Your task to perform on an android device: Go to sound settings Image 0: 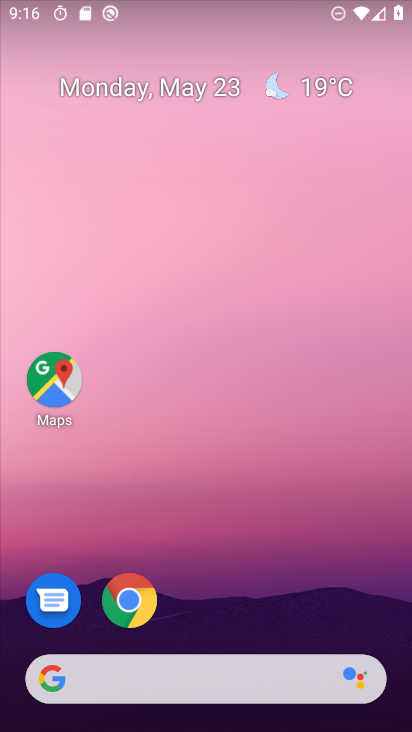
Step 0: press home button
Your task to perform on an android device: Go to sound settings Image 1: 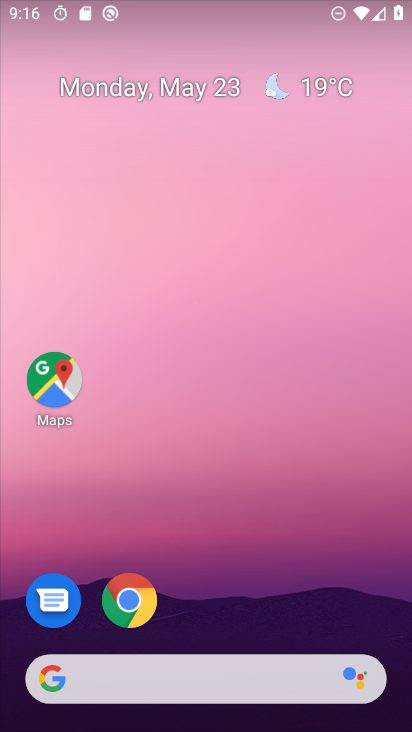
Step 1: drag from (19, 693) to (259, 128)
Your task to perform on an android device: Go to sound settings Image 2: 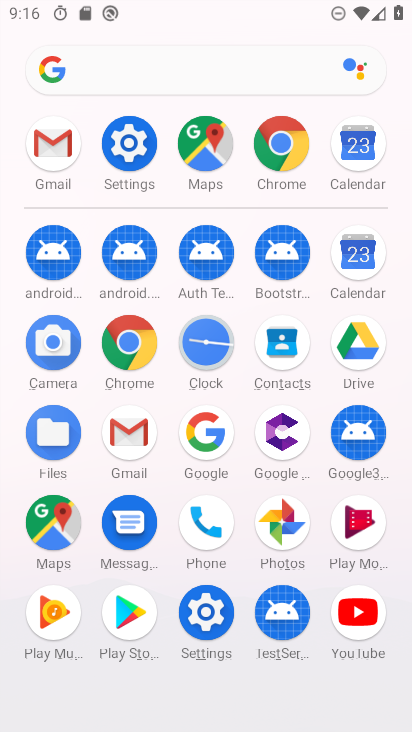
Step 2: click (125, 132)
Your task to perform on an android device: Go to sound settings Image 3: 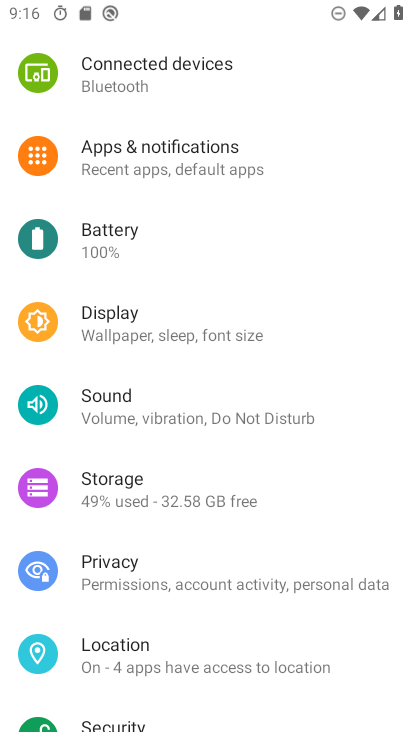
Step 3: click (128, 416)
Your task to perform on an android device: Go to sound settings Image 4: 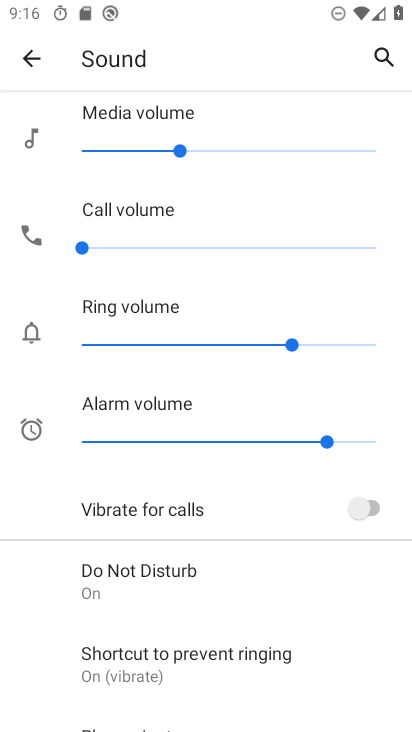
Step 4: task complete